Your task to perform on an android device: Open Amazon Image 0: 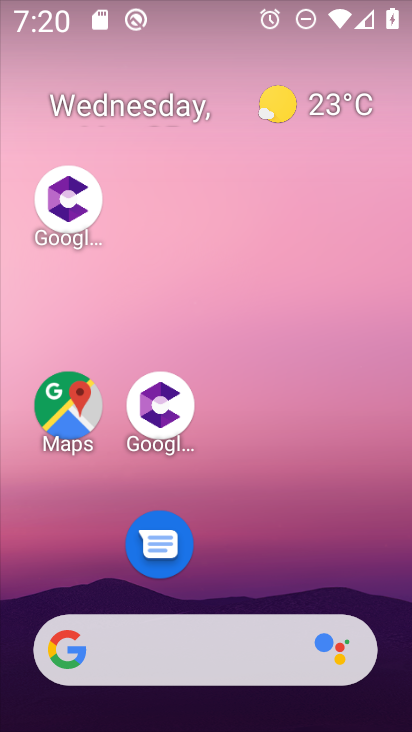
Step 0: drag from (266, 524) to (188, 37)
Your task to perform on an android device: Open Amazon Image 1: 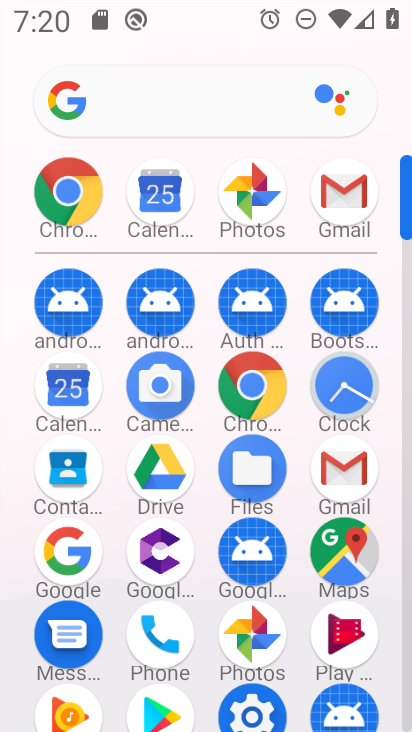
Step 1: click (262, 387)
Your task to perform on an android device: Open Amazon Image 2: 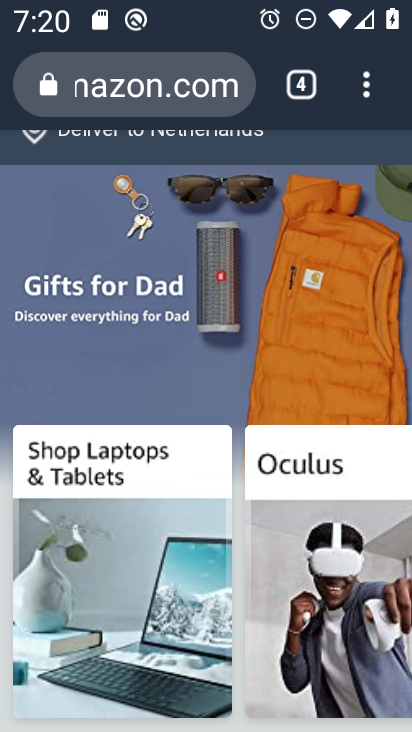
Step 2: task complete